Your task to perform on an android device: Open Amazon Image 0: 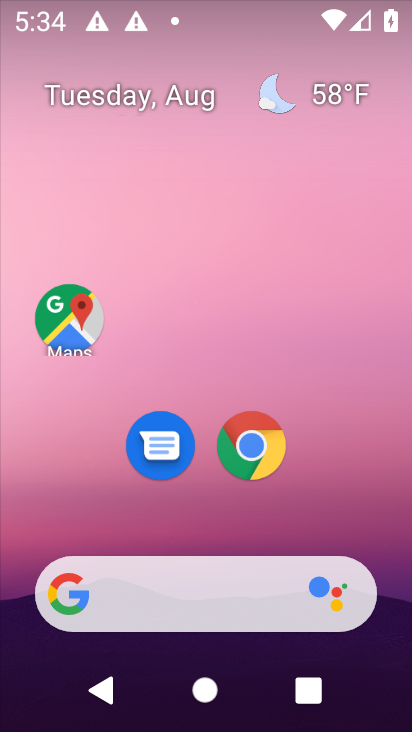
Step 0: click (248, 440)
Your task to perform on an android device: Open Amazon Image 1: 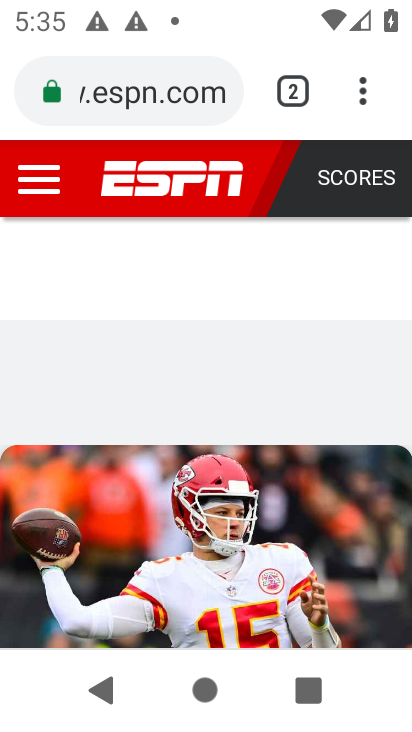
Step 1: click (199, 96)
Your task to perform on an android device: Open Amazon Image 2: 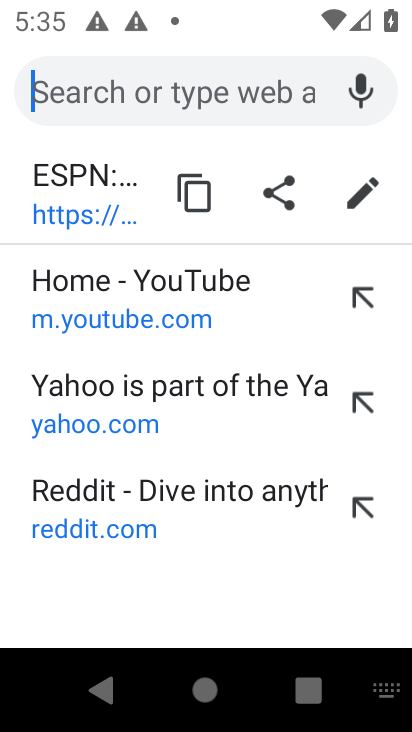
Step 2: type "www.amazon.com"
Your task to perform on an android device: Open Amazon Image 3: 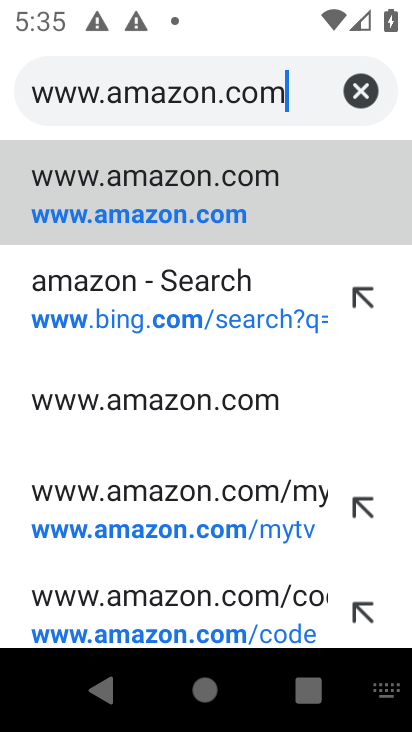
Step 3: click (79, 208)
Your task to perform on an android device: Open Amazon Image 4: 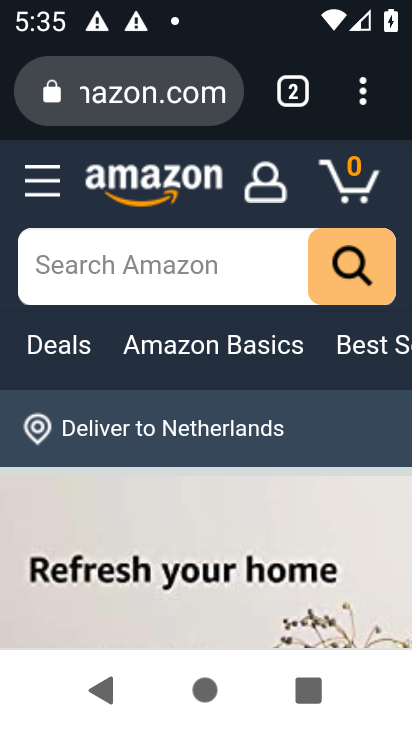
Step 4: task complete